Your task to perform on an android device: turn on translation in the chrome app Image 0: 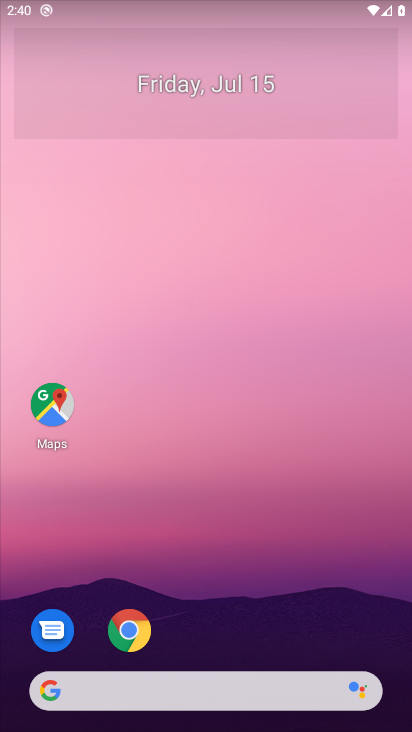
Step 0: click (124, 631)
Your task to perform on an android device: turn on translation in the chrome app Image 1: 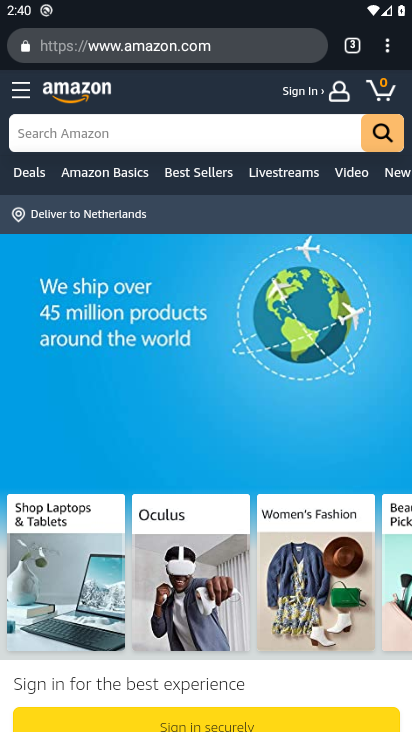
Step 1: drag from (387, 48) to (237, 530)
Your task to perform on an android device: turn on translation in the chrome app Image 2: 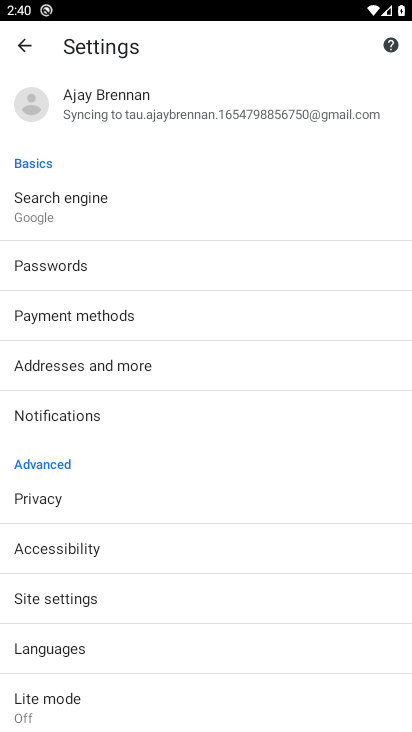
Step 2: click (66, 649)
Your task to perform on an android device: turn on translation in the chrome app Image 3: 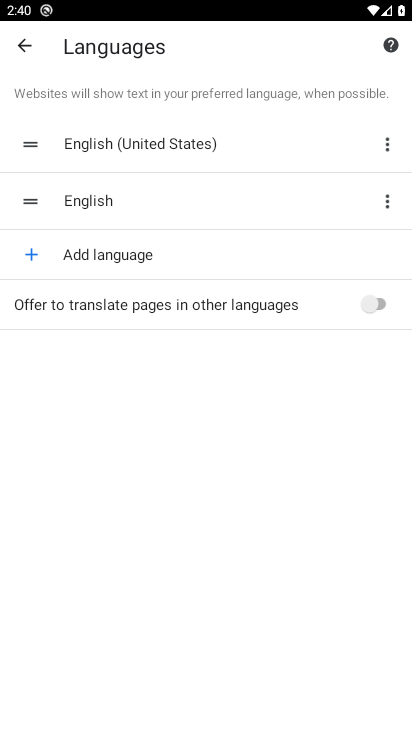
Step 3: click (373, 301)
Your task to perform on an android device: turn on translation in the chrome app Image 4: 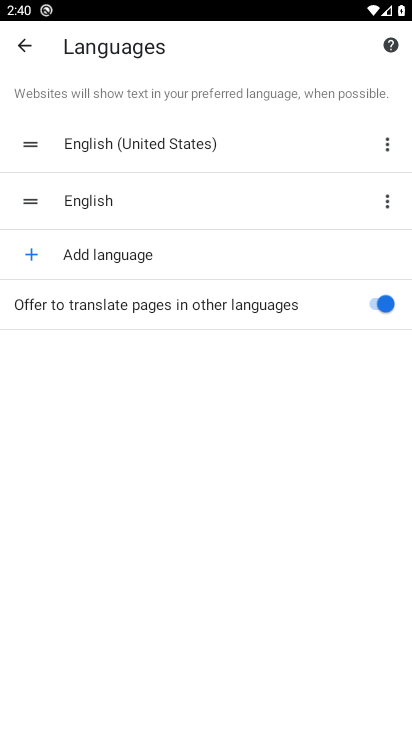
Step 4: task complete